Your task to perform on an android device: star an email in the gmail app Image 0: 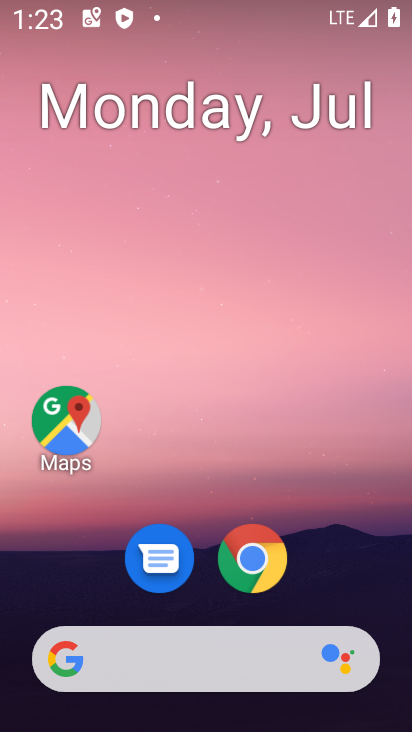
Step 0: drag from (370, 576) to (371, 24)
Your task to perform on an android device: star an email in the gmail app Image 1: 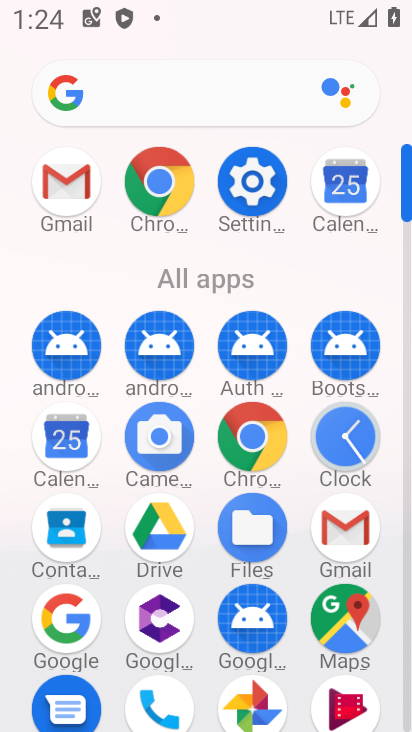
Step 1: click (345, 528)
Your task to perform on an android device: star an email in the gmail app Image 2: 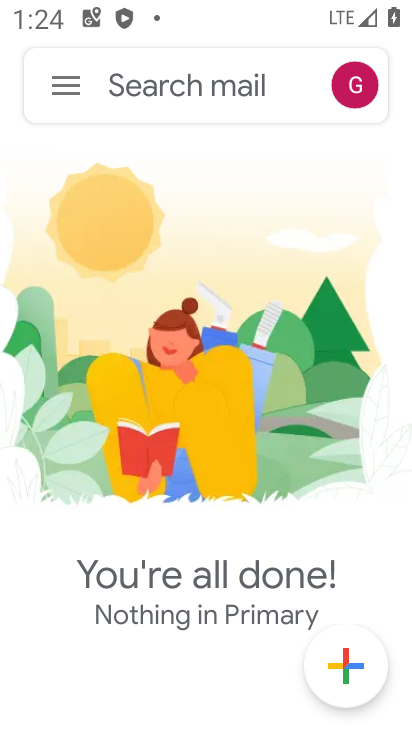
Step 2: click (60, 80)
Your task to perform on an android device: star an email in the gmail app Image 3: 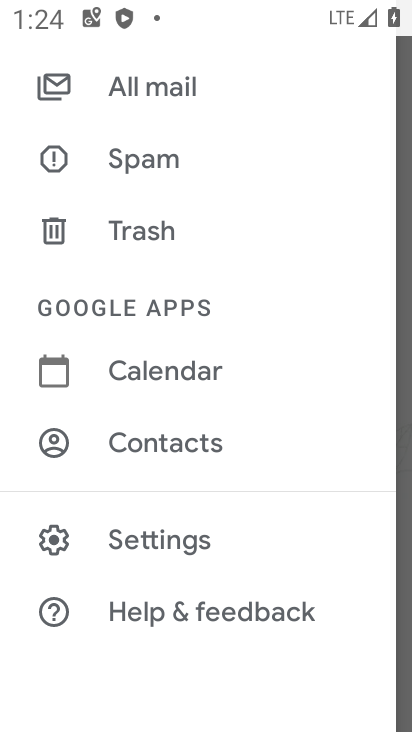
Step 3: drag from (289, 266) to (291, 392)
Your task to perform on an android device: star an email in the gmail app Image 4: 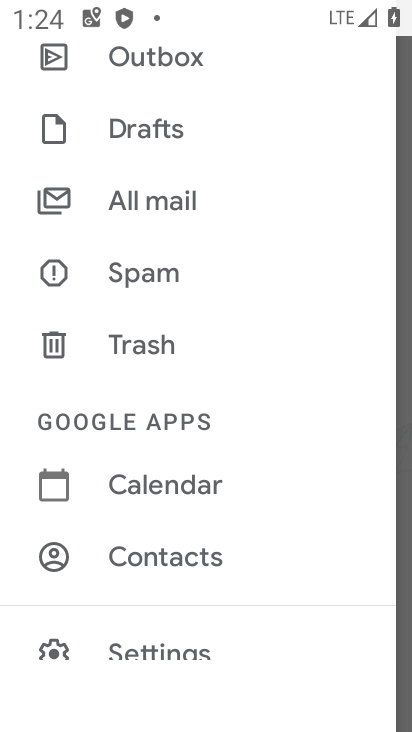
Step 4: drag from (274, 228) to (270, 366)
Your task to perform on an android device: star an email in the gmail app Image 5: 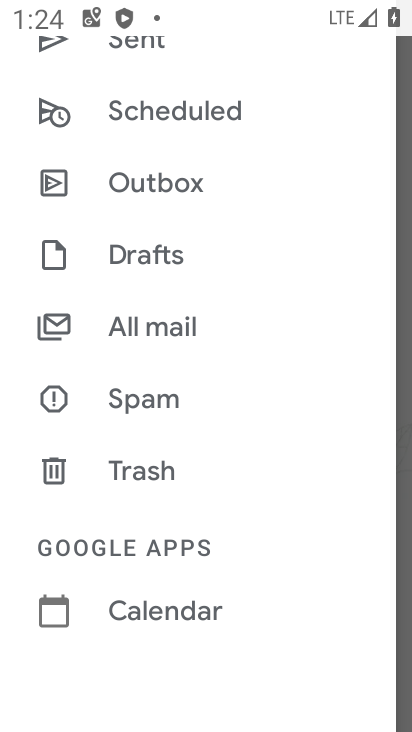
Step 5: drag from (265, 176) to (269, 307)
Your task to perform on an android device: star an email in the gmail app Image 6: 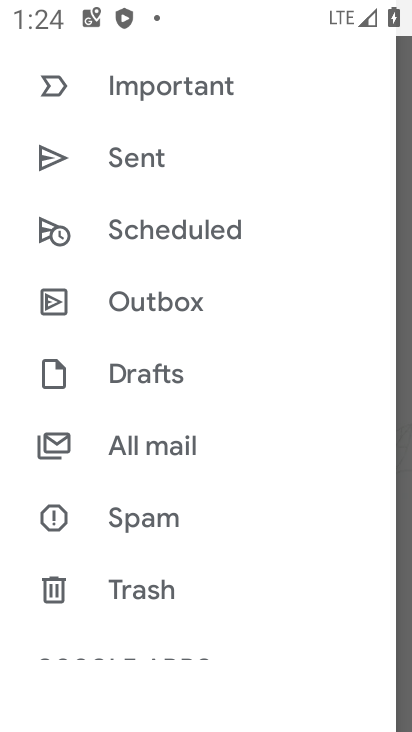
Step 6: drag from (195, 514) to (200, 408)
Your task to perform on an android device: star an email in the gmail app Image 7: 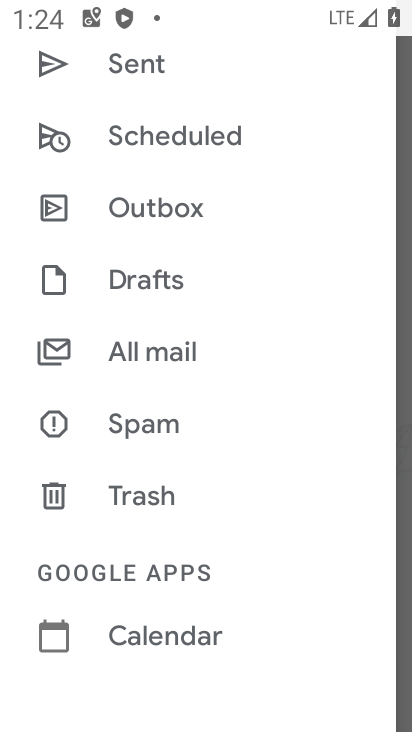
Step 7: click (195, 358)
Your task to perform on an android device: star an email in the gmail app Image 8: 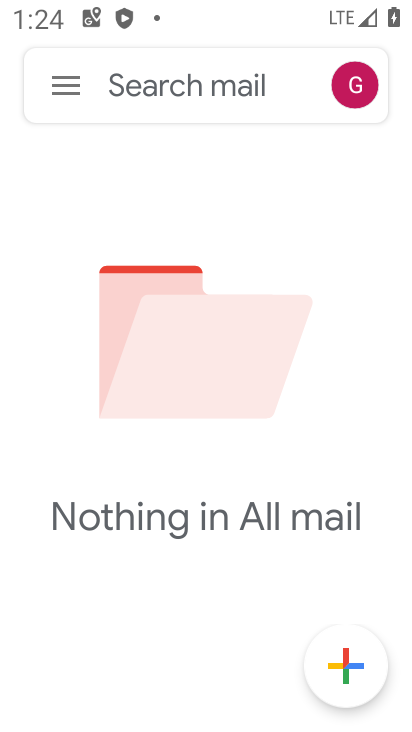
Step 8: task complete